Your task to perform on an android device: Open the phone app and click the voicemail tab. Image 0: 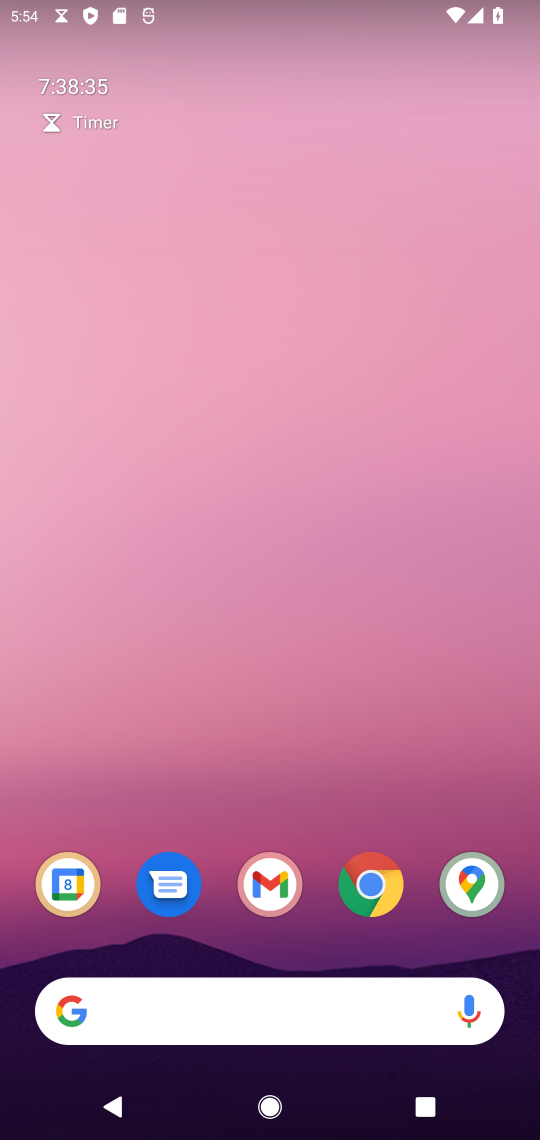
Step 0: drag from (398, 808) to (260, 91)
Your task to perform on an android device: Open the phone app and click the voicemail tab. Image 1: 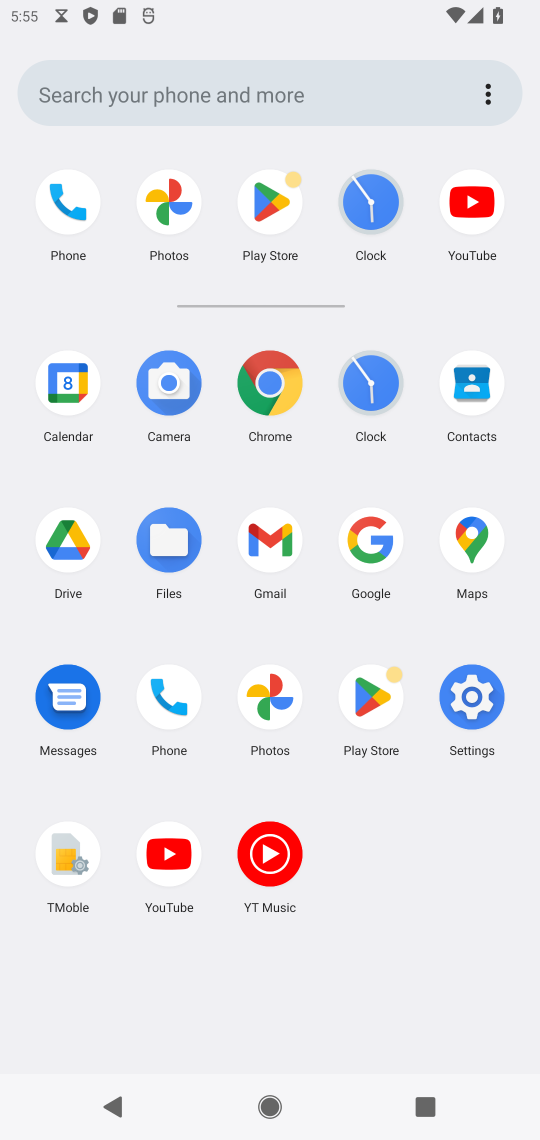
Step 1: click (151, 690)
Your task to perform on an android device: Open the phone app and click the voicemail tab. Image 2: 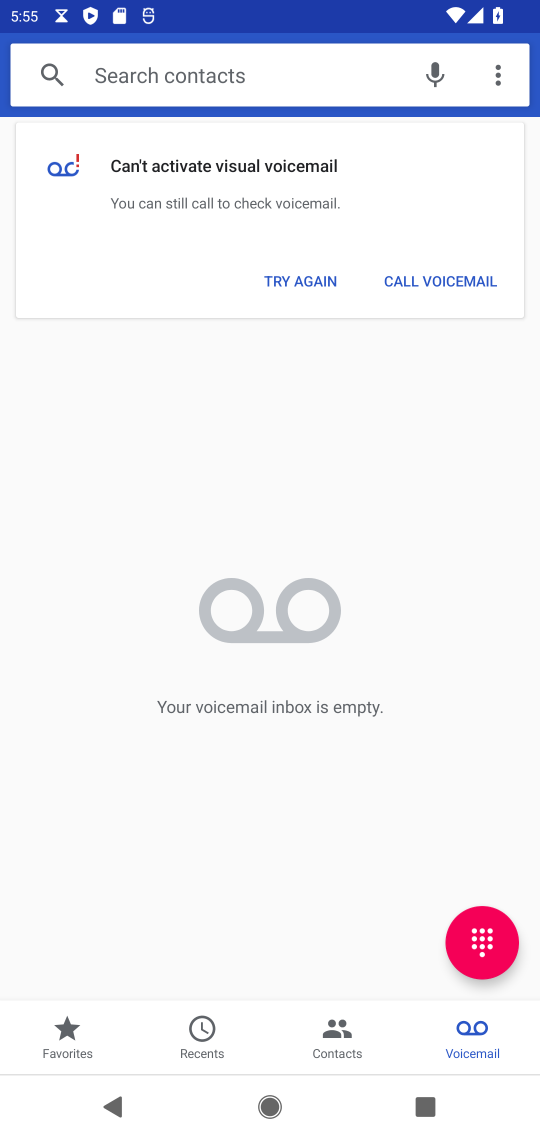
Step 2: task complete